Your task to perform on an android device: allow cookies in the chrome app Image 0: 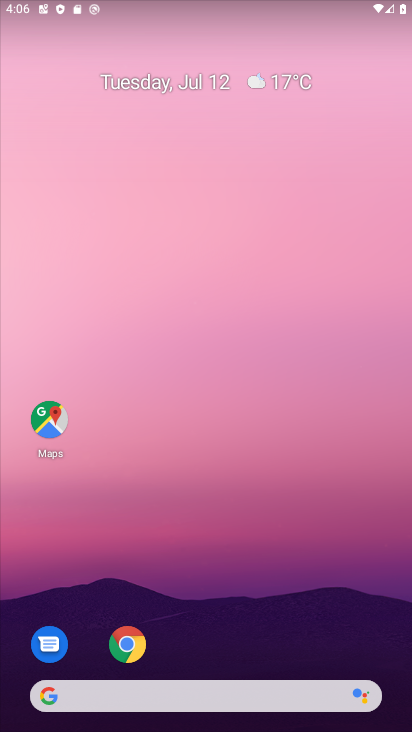
Step 0: click (135, 644)
Your task to perform on an android device: allow cookies in the chrome app Image 1: 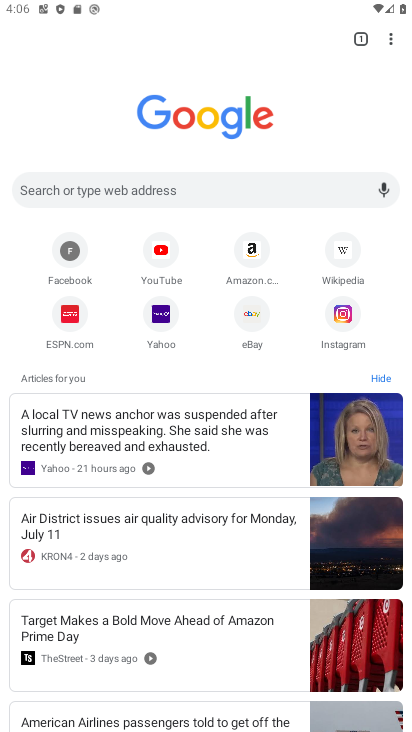
Step 1: click (388, 41)
Your task to perform on an android device: allow cookies in the chrome app Image 2: 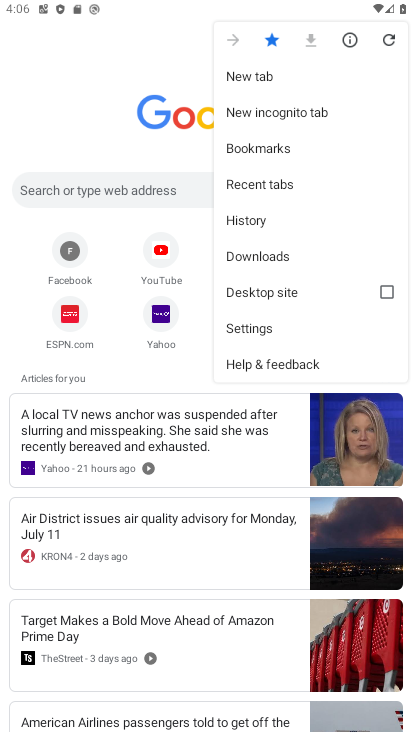
Step 2: click (304, 324)
Your task to perform on an android device: allow cookies in the chrome app Image 3: 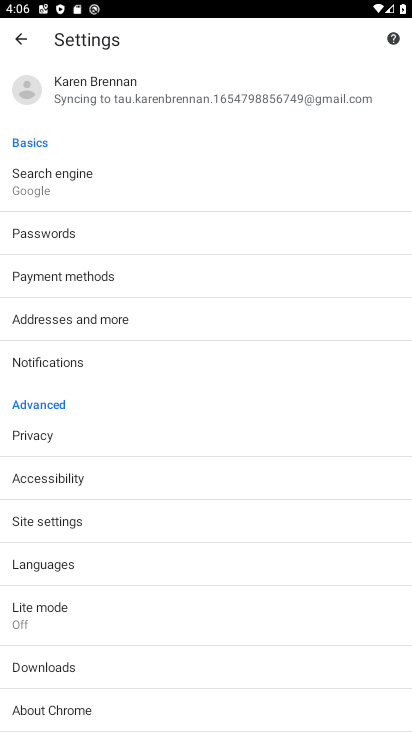
Step 3: click (99, 525)
Your task to perform on an android device: allow cookies in the chrome app Image 4: 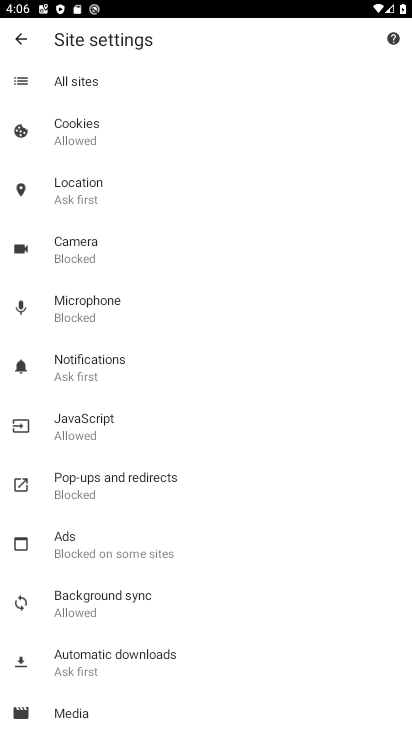
Step 4: click (194, 120)
Your task to perform on an android device: allow cookies in the chrome app Image 5: 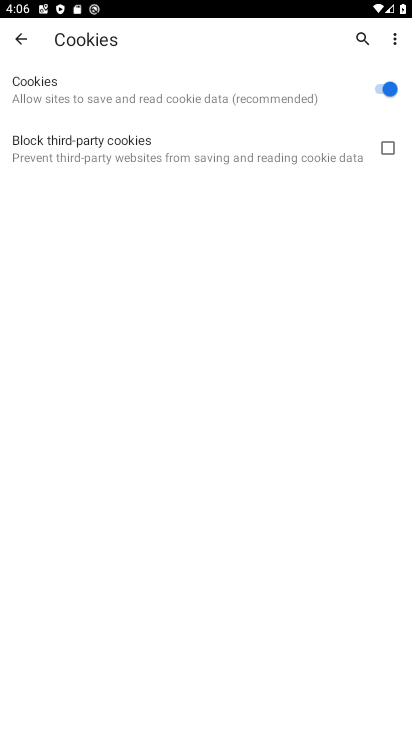
Step 5: task complete